Your task to perform on an android device: turn off wifi Image 0: 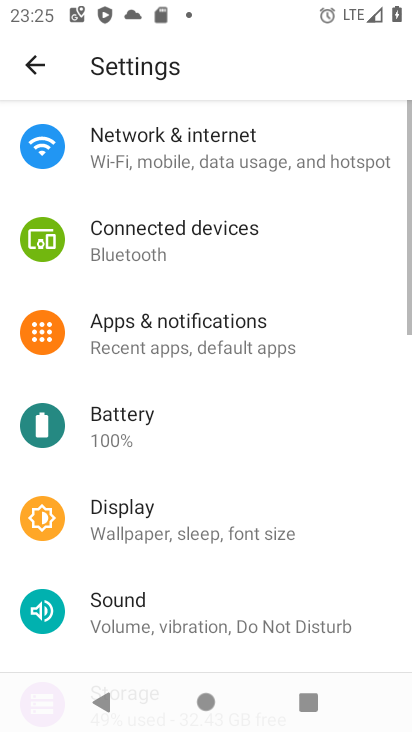
Step 0: press home button
Your task to perform on an android device: turn off wifi Image 1: 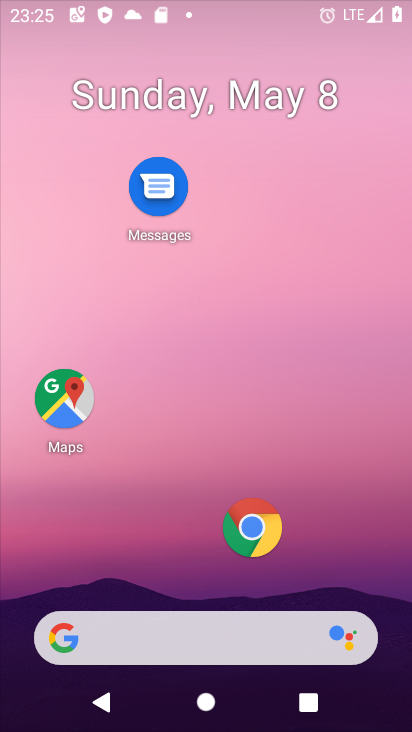
Step 1: drag from (172, 560) to (194, 79)
Your task to perform on an android device: turn off wifi Image 2: 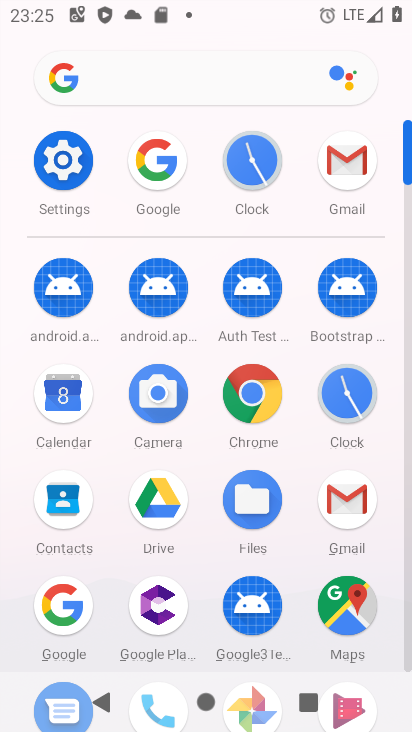
Step 2: click (67, 162)
Your task to perform on an android device: turn off wifi Image 3: 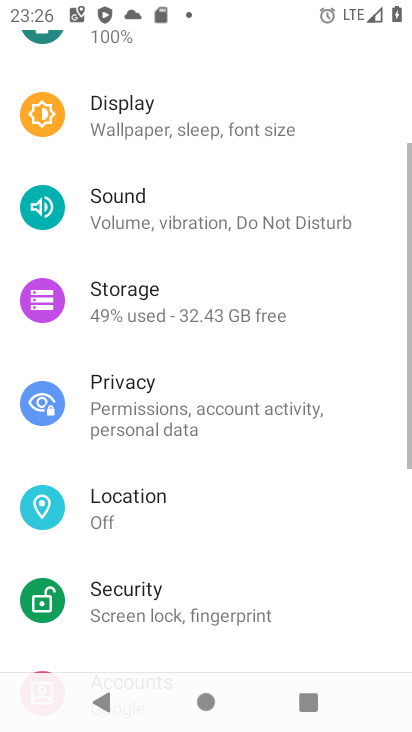
Step 3: drag from (198, 161) to (218, 621)
Your task to perform on an android device: turn off wifi Image 4: 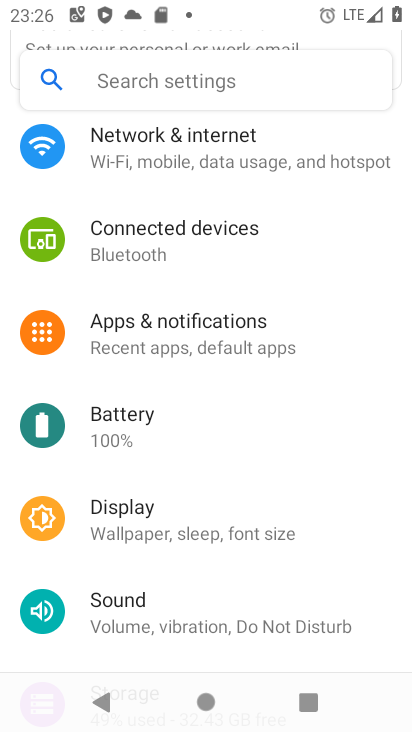
Step 4: click (154, 141)
Your task to perform on an android device: turn off wifi Image 5: 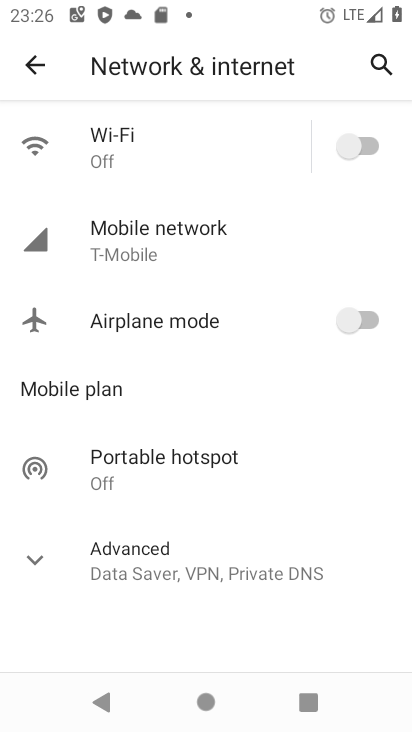
Step 5: task complete